Your task to perform on an android device: delete a single message in the gmail app Image 0: 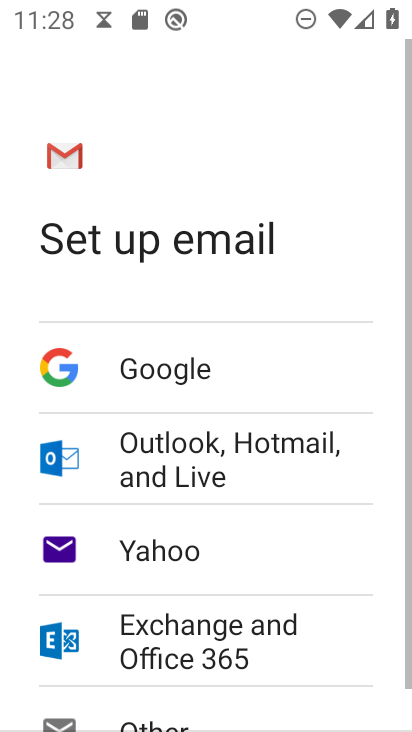
Step 0: press home button
Your task to perform on an android device: delete a single message in the gmail app Image 1: 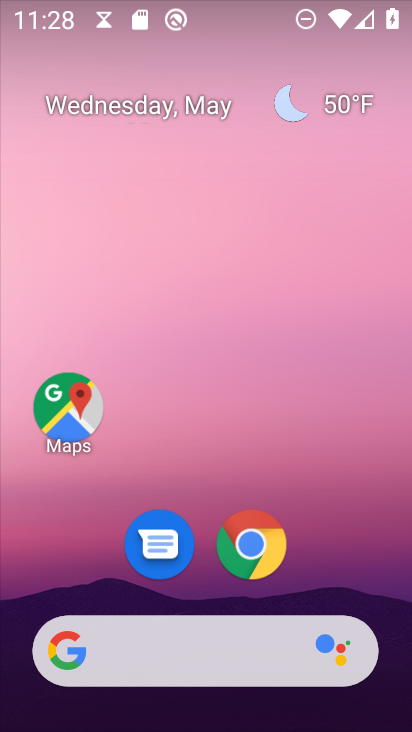
Step 1: drag from (194, 582) to (223, 204)
Your task to perform on an android device: delete a single message in the gmail app Image 2: 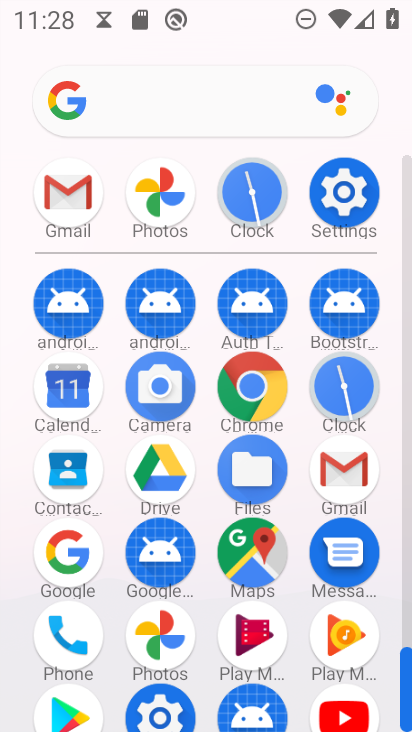
Step 2: click (64, 223)
Your task to perform on an android device: delete a single message in the gmail app Image 3: 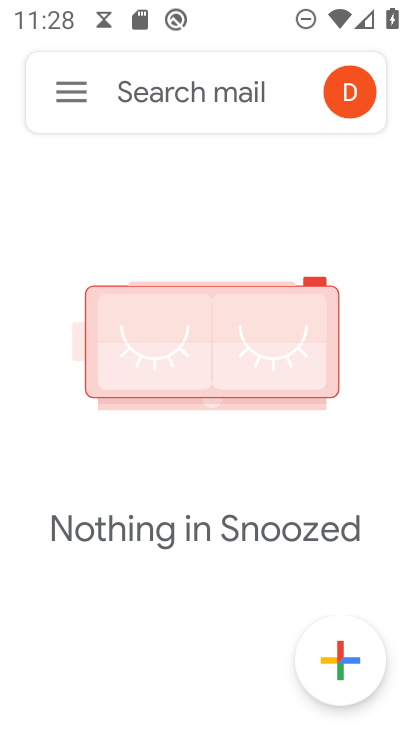
Step 3: click (63, 92)
Your task to perform on an android device: delete a single message in the gmail app Image 4: 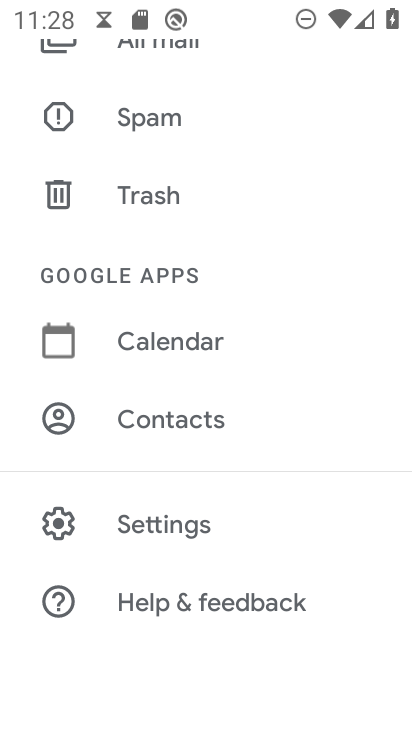
Step 4: drag from (224, 162) to (201, 702)
Your task to perform on an android device: delete a single message in the gmail app Image 5: 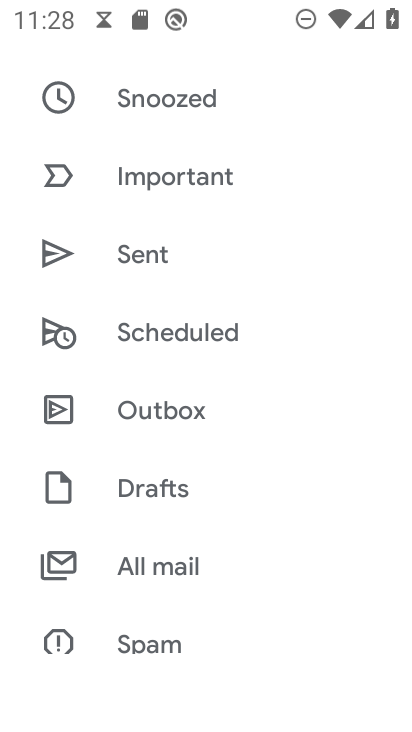
Step 5: drag from (238, 178) to (285, 660)
Your task to perform on an android device: delete a single message in the gmail app Image 6: 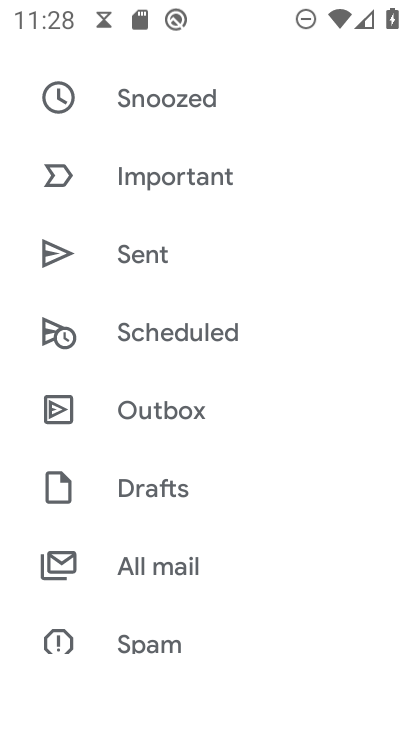
Step 6: drag from (232, 313) to (288, 616)
Your task to perform on an android device: delete a single message in the gmail app Image 7: 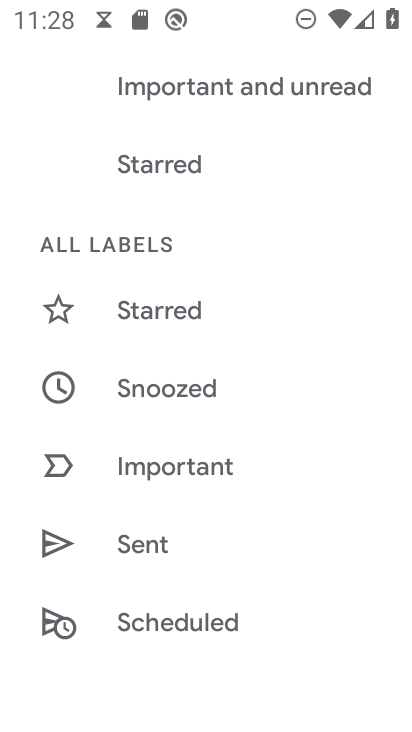
Step 7: drag from (208, 139) to (266, 568)
Your task to perform on an android device: delete a single message in the gmail app Image 8: 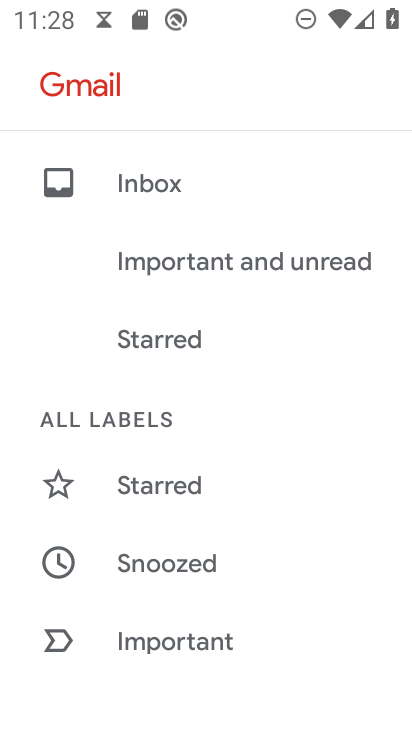
Step 8: click (156, 200)
Your task to perform on an android device: delete a single message in the gmail app Image 9: 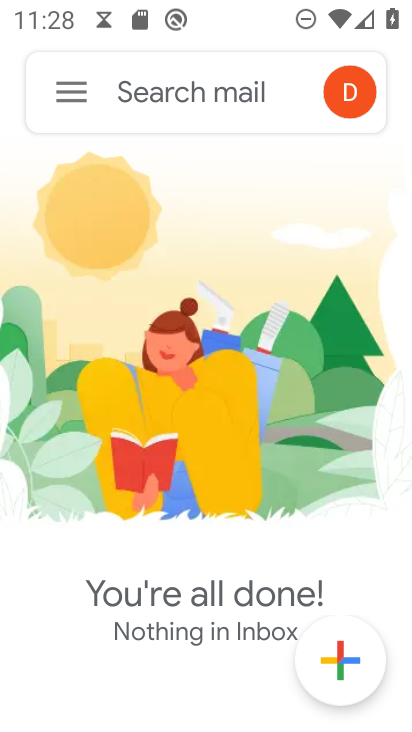
Step 9: task complete